Your task to perform on an android device: open app "Google Chat" (install if not already installed) Image 0: 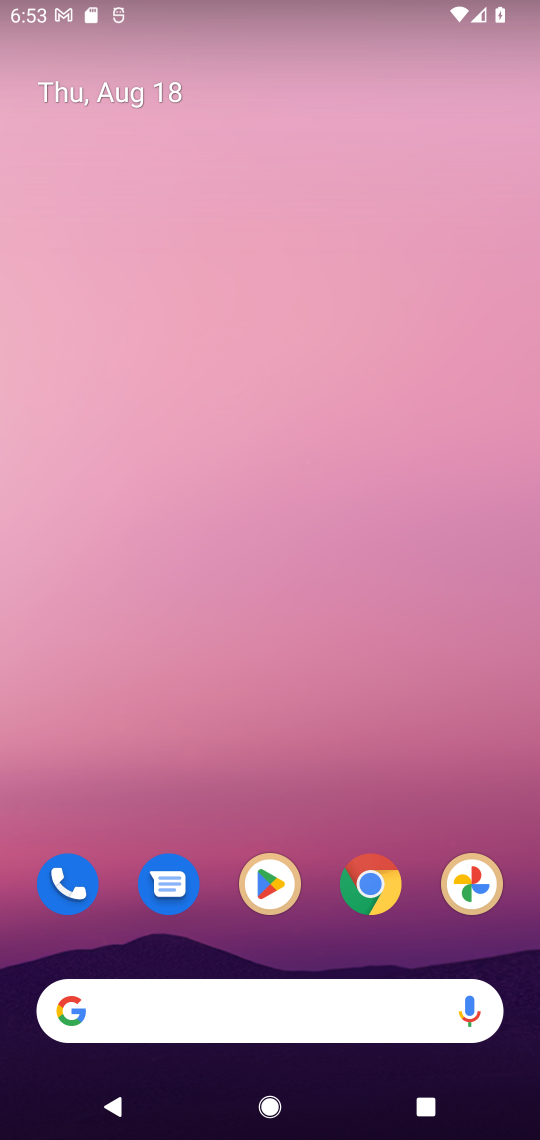
Step 0: drag from (190, 1015) to (357, 59)
Your task to perform on an android device: open app "Google Chat" (install if not already installed) Image 1: 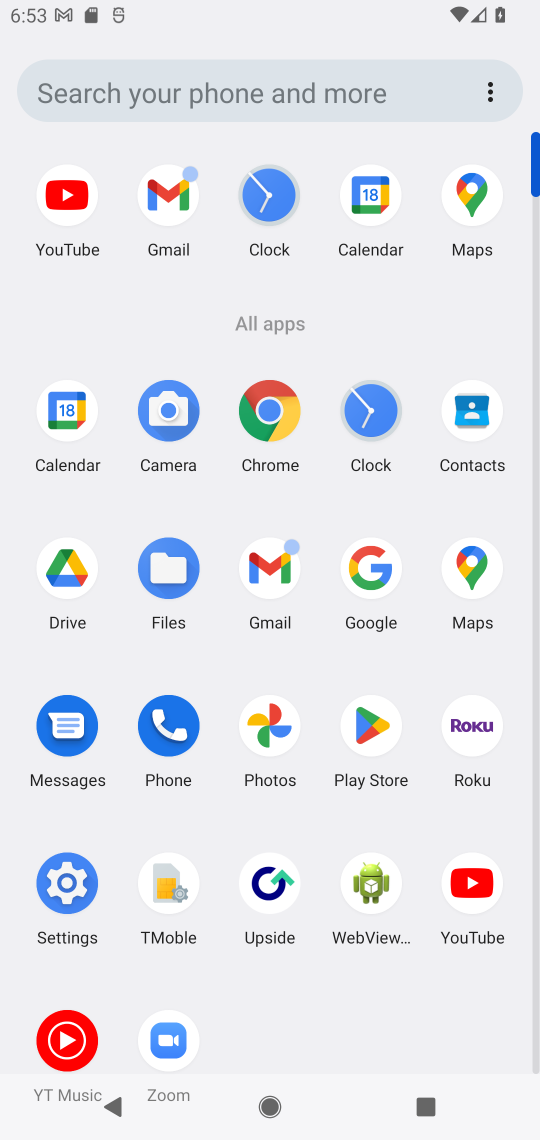
Step 1: click (378, 729)
Your task to perform on an android device: open app "Google Chat" (install if not already installed) Image 2: 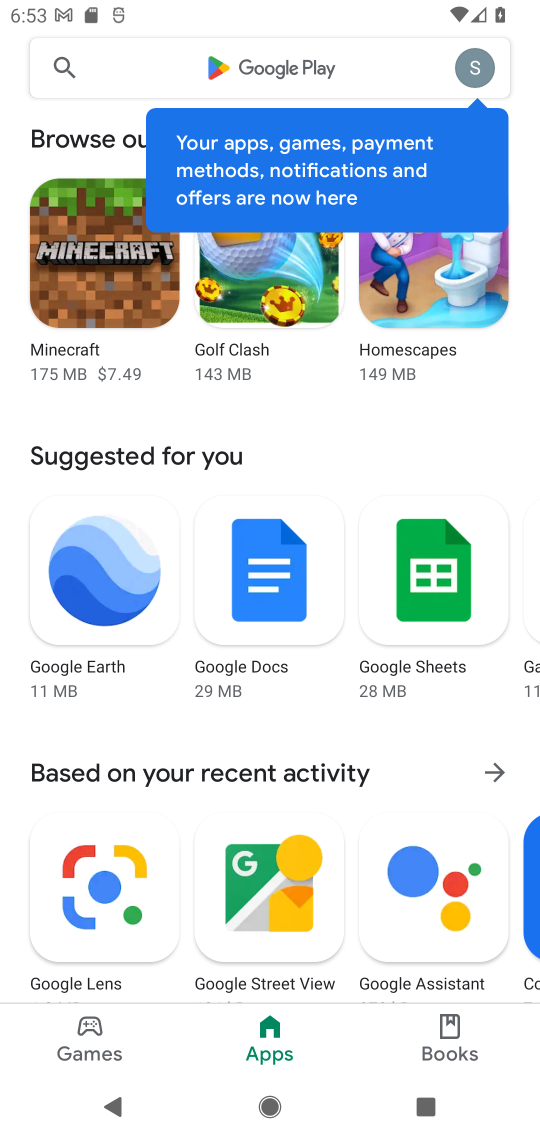
Step 2: click (251, 69)
Your task to perform on an android device: open app "Google Chat" (install if not already installed) Image 3: 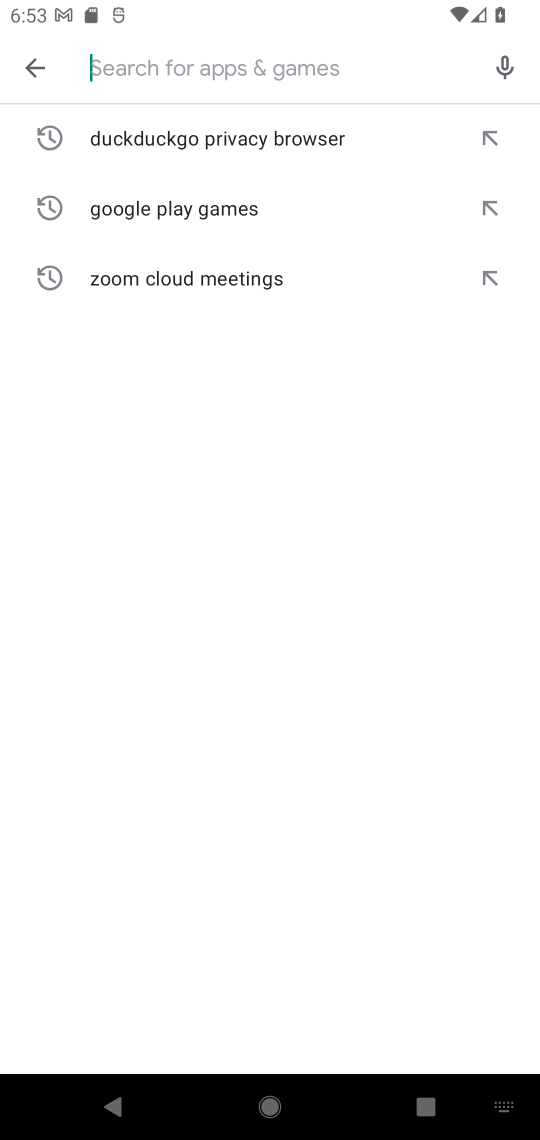
Step 3: type "Google Chat"
Your task to perform on an android device: open app "Google Chat" (install if not already installed) Image 4: 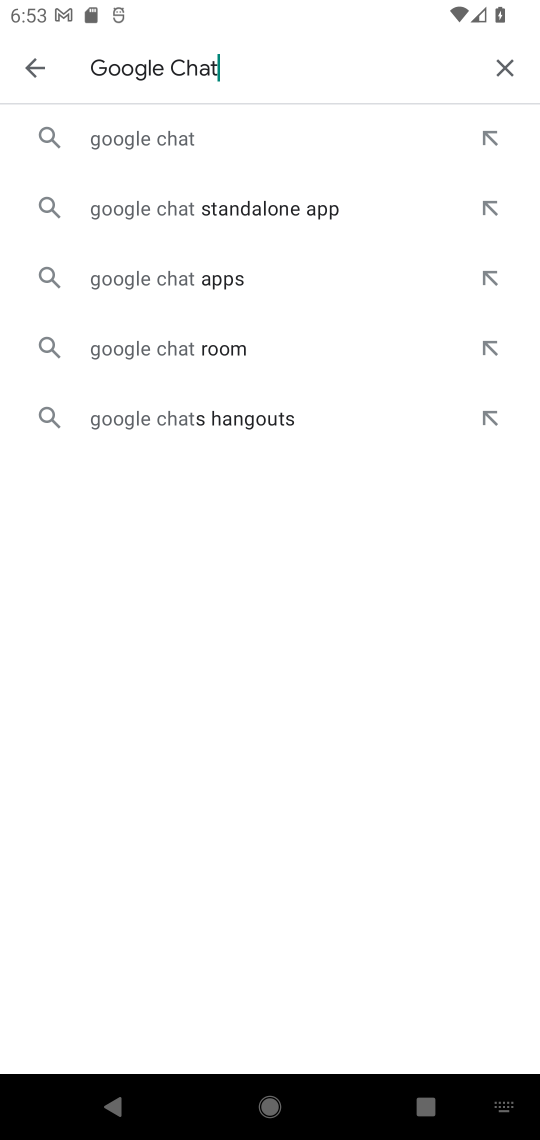
Step 4: click (178, 145)
Your task to perform on an android device: open app "Google Chat" (install if not already installed) Image 5: 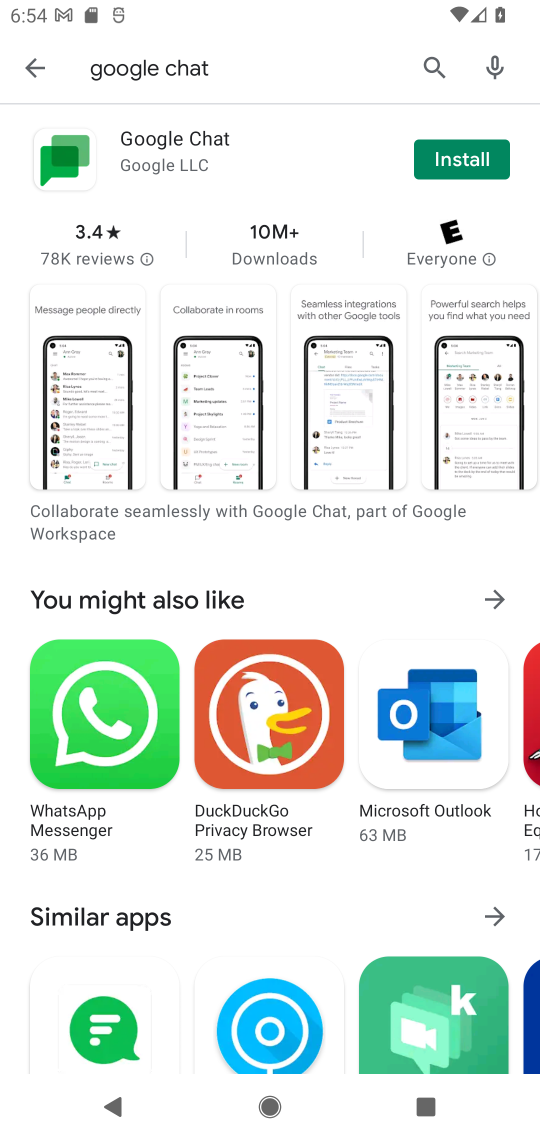
Step 5: click (483, 171)
Your task to perform on an android device: open app "Google Chat" (install if not already installed) Image 6: 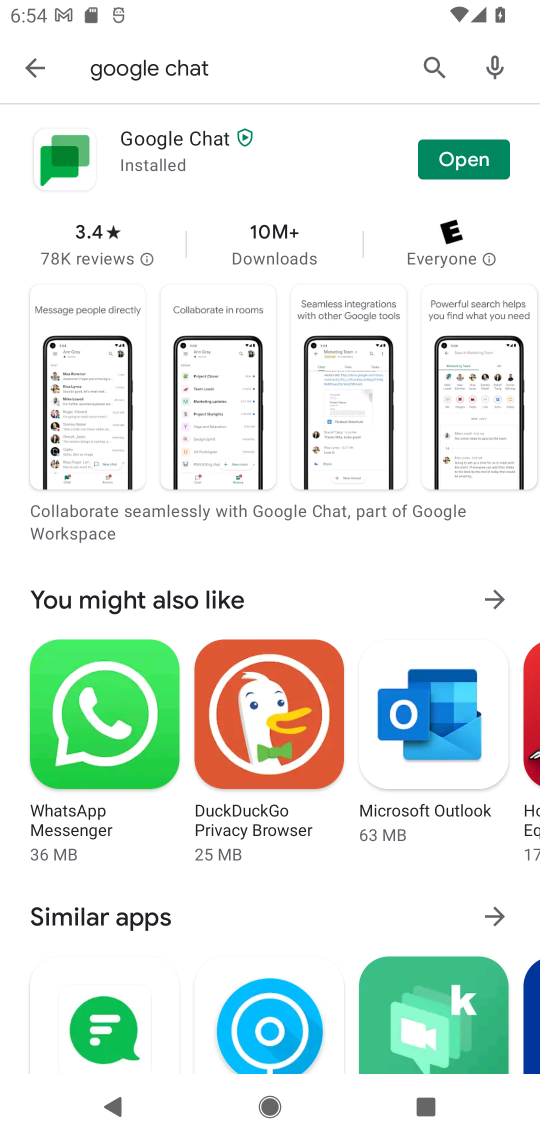
Step 6: click (475, 161)
Your task to perform on an android device: open app "Google Chat" (install if not already installed) Image 7: 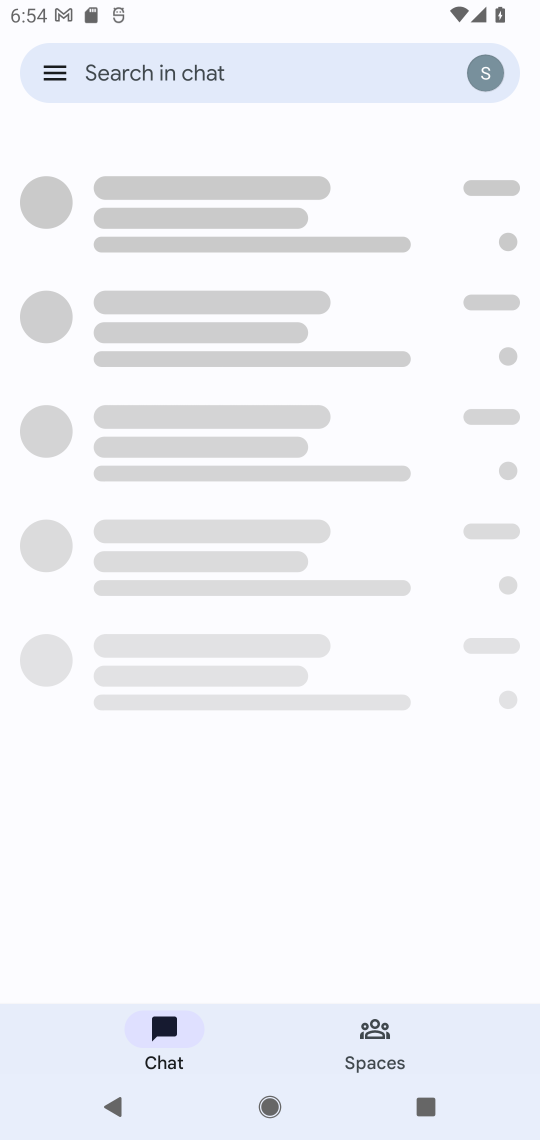
Step 7: task complete